Your task to perform on an android device: What's on my calendar tomorrow? Image 0: 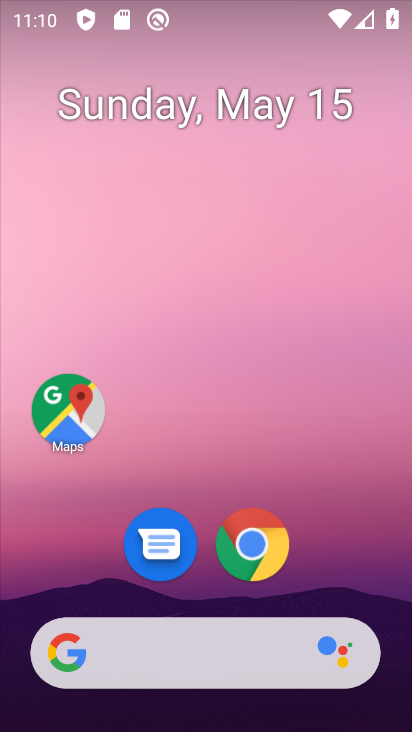
Step 0: drag from (336, 566) to (282, 76)
Your task to perform on an android device: What's on my calendar tomorrow? Image 1: 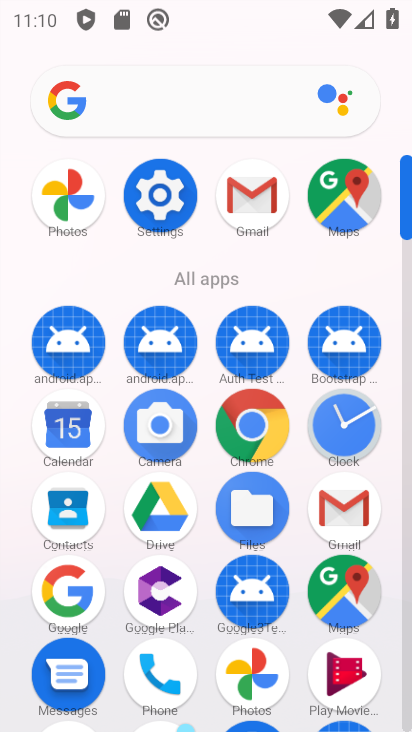
Step 1: click (84, 423)
Your task to perform on an android device: What's on my calendar tomorrow? Image 2: 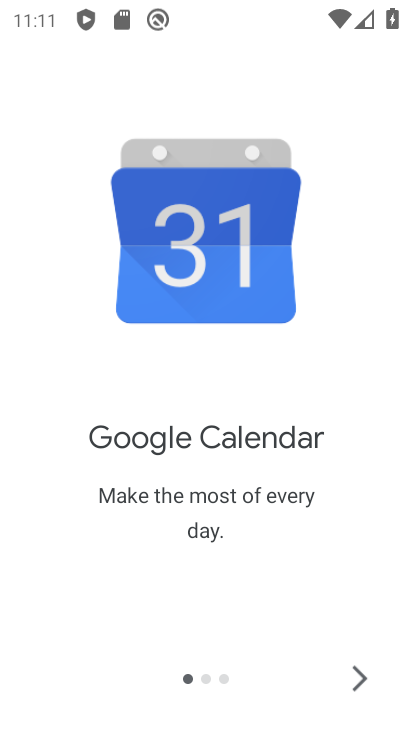
Step 2: click (359, 683)
Your task to perform on an android device: What's on my calendar tomorrow? Image 3: 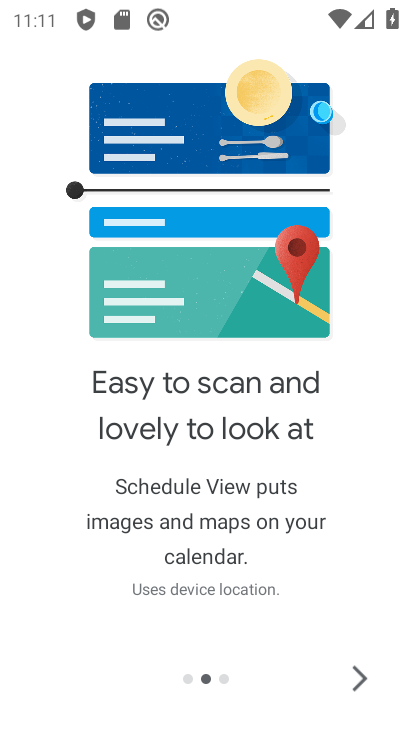
Step 3: click (359, 683)
Your task to perform on an android device: What's on my calendar tomorrow? Image 4: 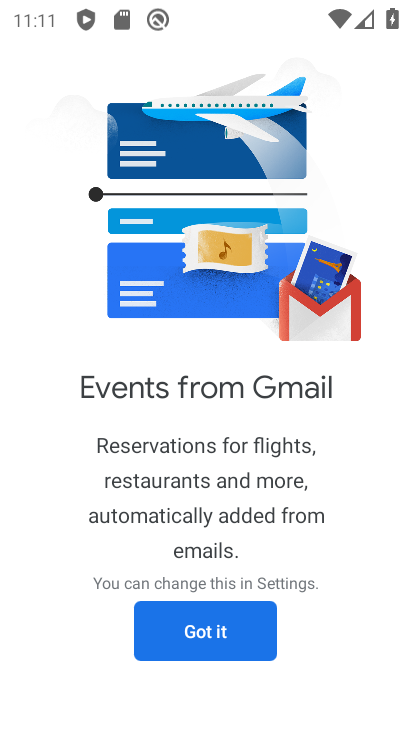
Step 4: click (359, 683)
Your task to perform on an android device: What's on my calendar tomorrow? Image 5: 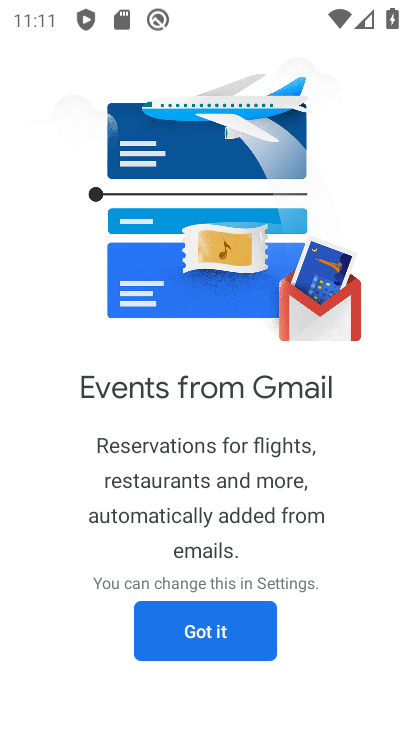
Step 5: click (206, 635)
Your task to perform on an android device: What's on my calendar tomorrow? Image 6: 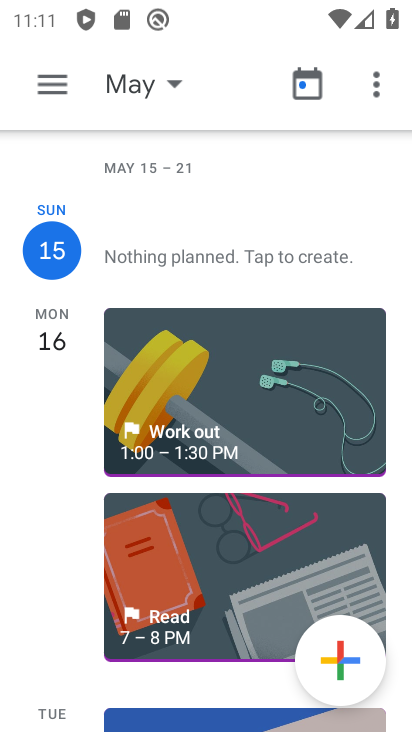
Step 6: click (152, 107)
Your task to perform on an android device: What's on my calendar tomorrow? Image 7: 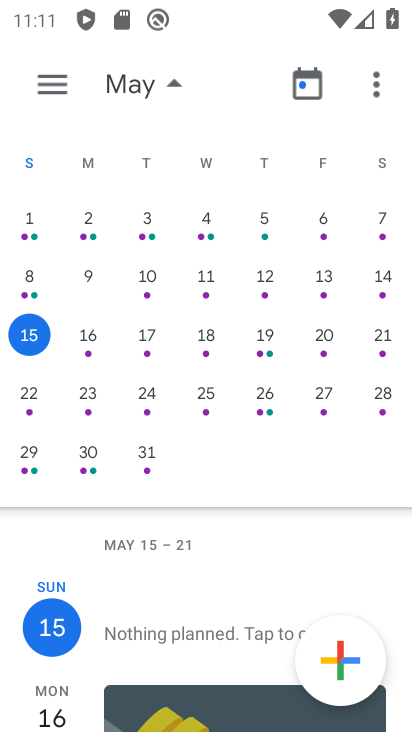
Step 7: click (150, 336)
Your task to perform on an android device: What's on my calendar tomorrow? Image 8: 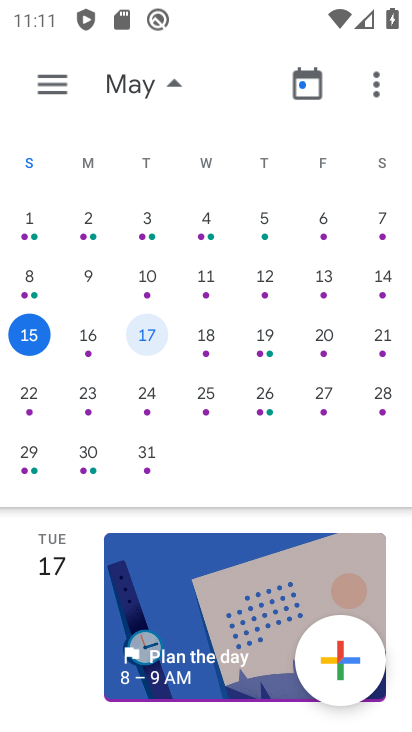
Step 8: click (150, 336)
Your task to perform on an android device: What's on my calendar tomorrow? Image 9: 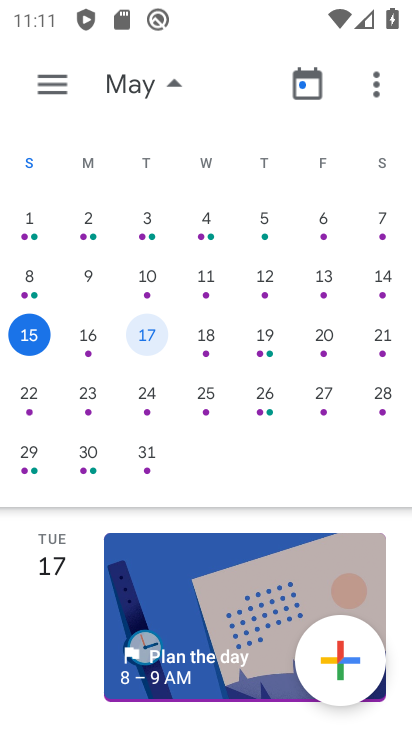
Step 9: click (167, 85)
Your task to perform on an android device: What's on my calendar tomorrow? Image 10: 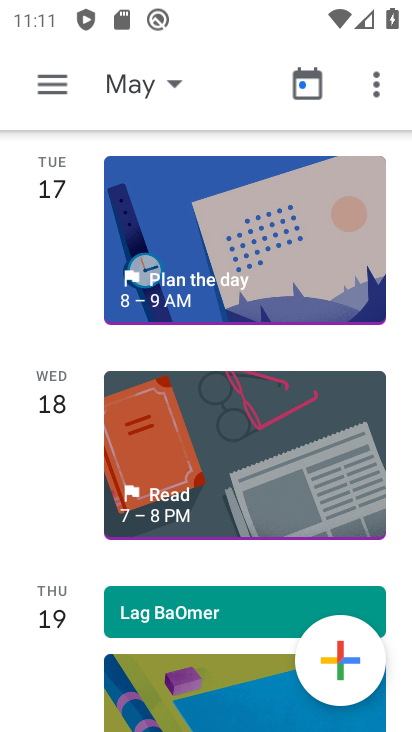
Step 10: task complete